Your task to perform on an android device: open chrome privacy settings Image 0: 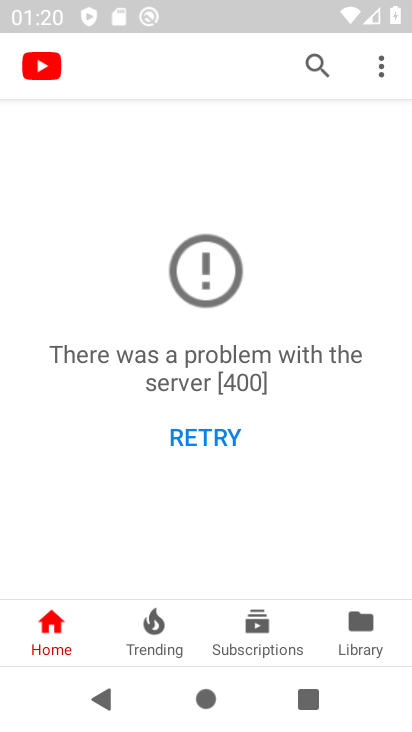
Step 0: press home button
Your task to perform on an android device: open chrome privacy settings Image 1: 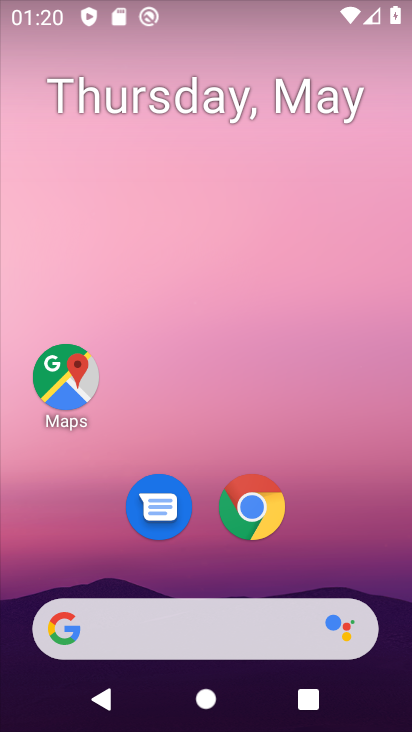
Step 1: click (264, 496)
Your task to perform on an android device: open chrome privacy settings Image 2: 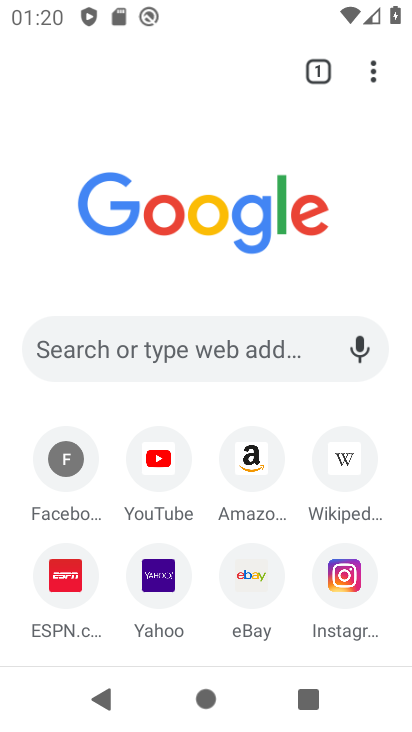
Step 2: click (378, 62)
Your task to perform on an android device: open chrome privacy settings Image 3: 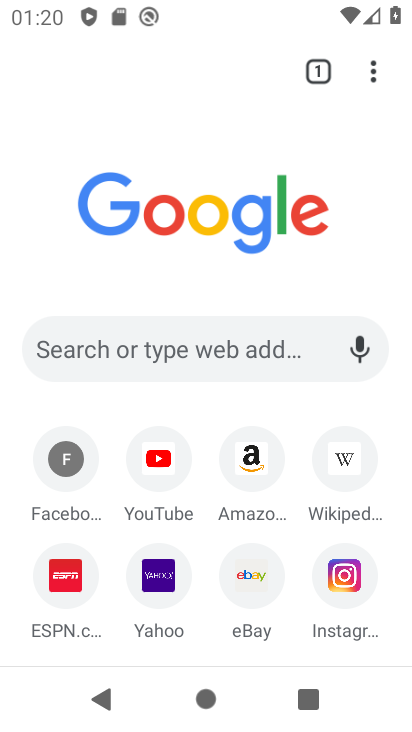
Step 3: click (367, 74)
Your task to perform on an android device: open chrome privacy settings Image 4: 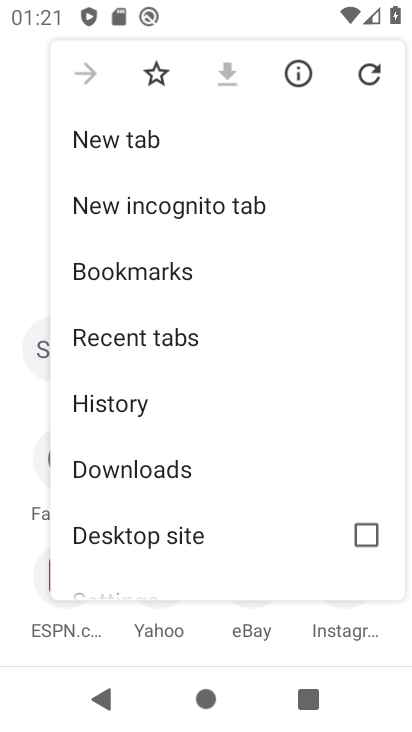
Step 4: drag from (188, 519) to (203, 292)
Your task to perform on an android device: open chrome privacy settings Image 5: 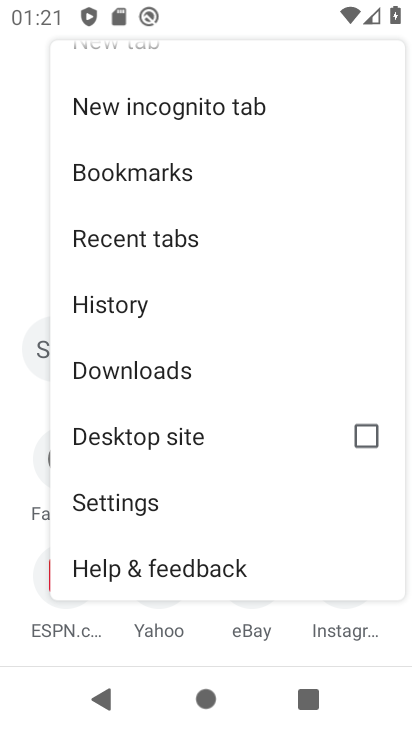
Step 5: click (110, 508)
Your task to perform on an android device: open chrome privacy settings Image 6: 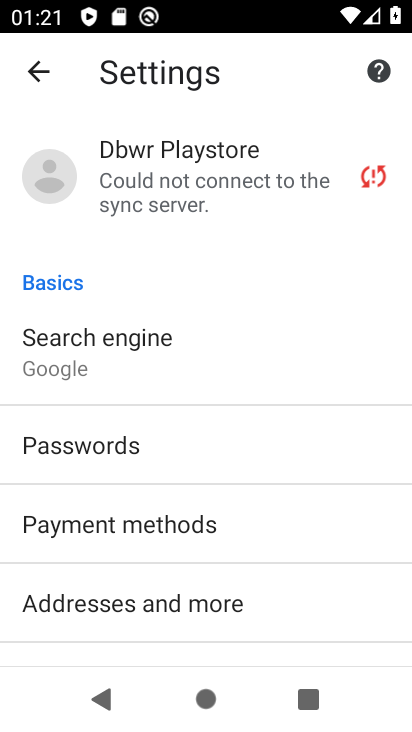
Step 6: drag from (181, 577) to (261, 241)
Your task to perform on an android device: open chrome privacy settings Image 7: 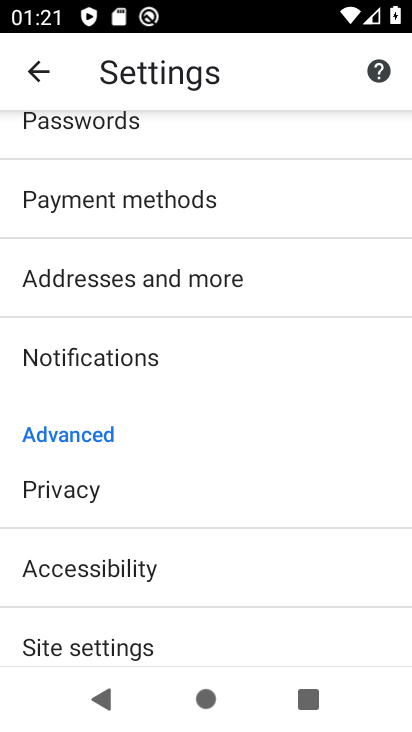
Step 7: click (121, 498)
Your task to perform on an android device: open chrome privacy settings Image 8: 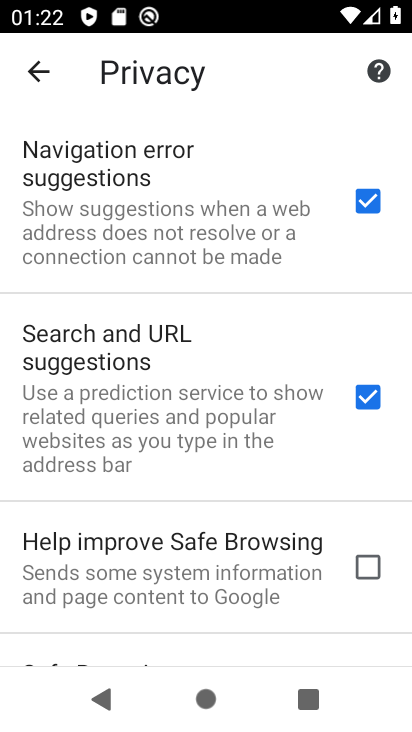
Step 8: task complete